Your task to perform on an android device: turn on bluetooth scan Image 0: 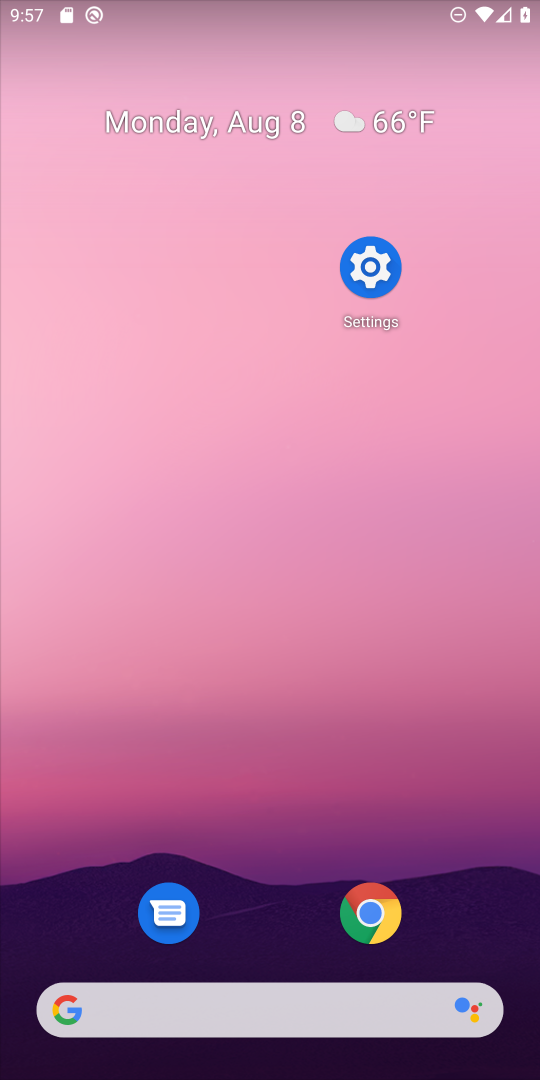
Step 0: drag from (266, 958) to (365, 121)
Your task to perform on an android device: turn on bluetooth scan Image 1: 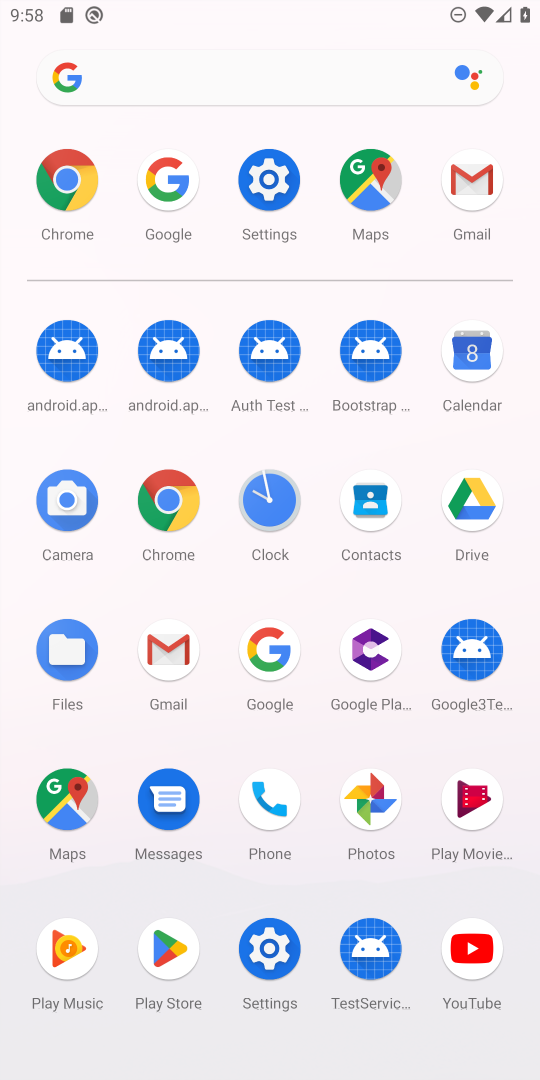
Step 1: click (269, 181)
Your task to perform on an android device: turn on bluetooth scan Image 2: 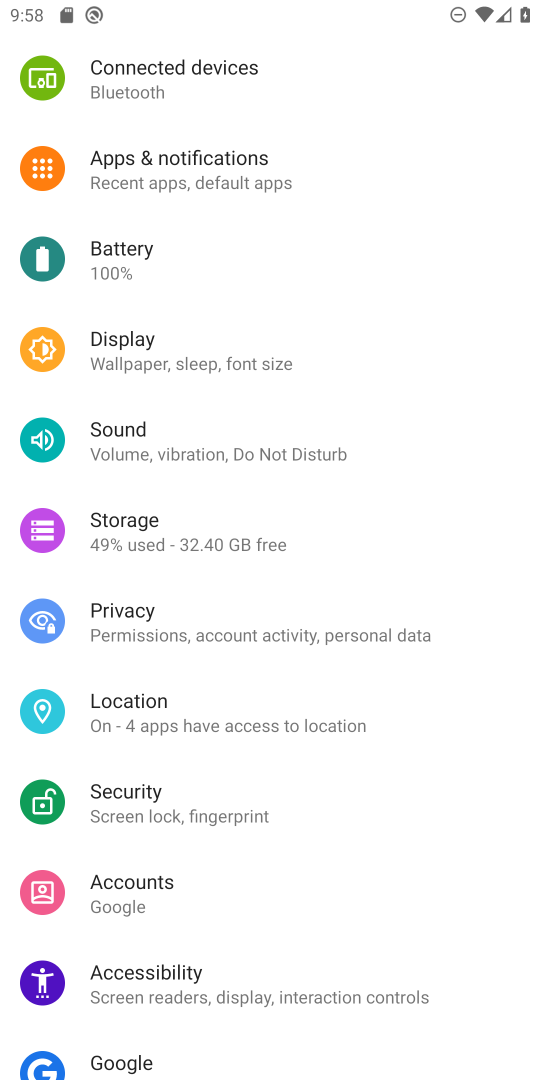
Step 2: drag from (236, 335) to (208, 542)
Your task to perform on an android device: turn on bluetooth scan Image 3: 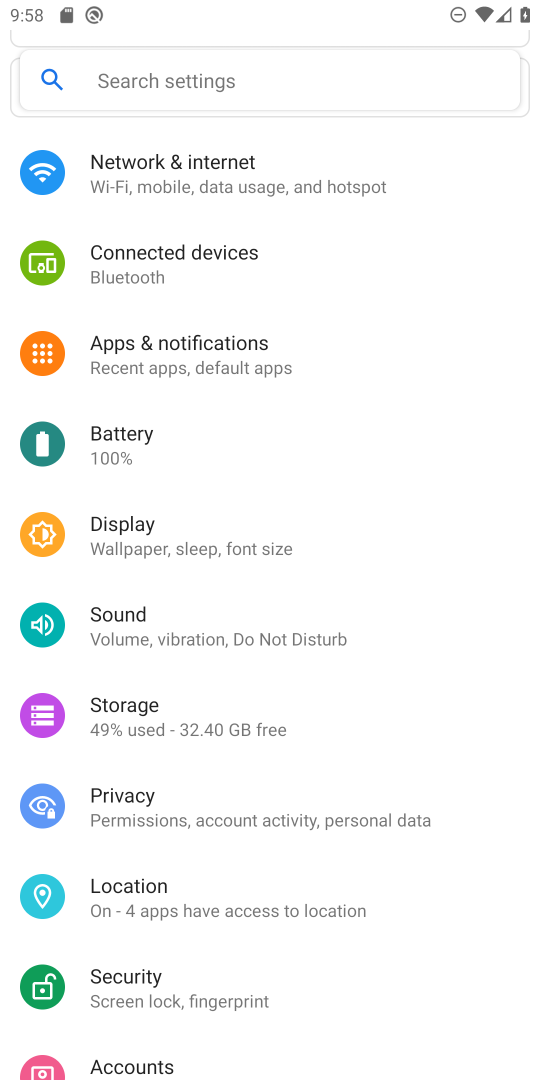
Step 3: click (160, 897)
Your task to perform on an android device: turn on bluetooth scan Image 4: 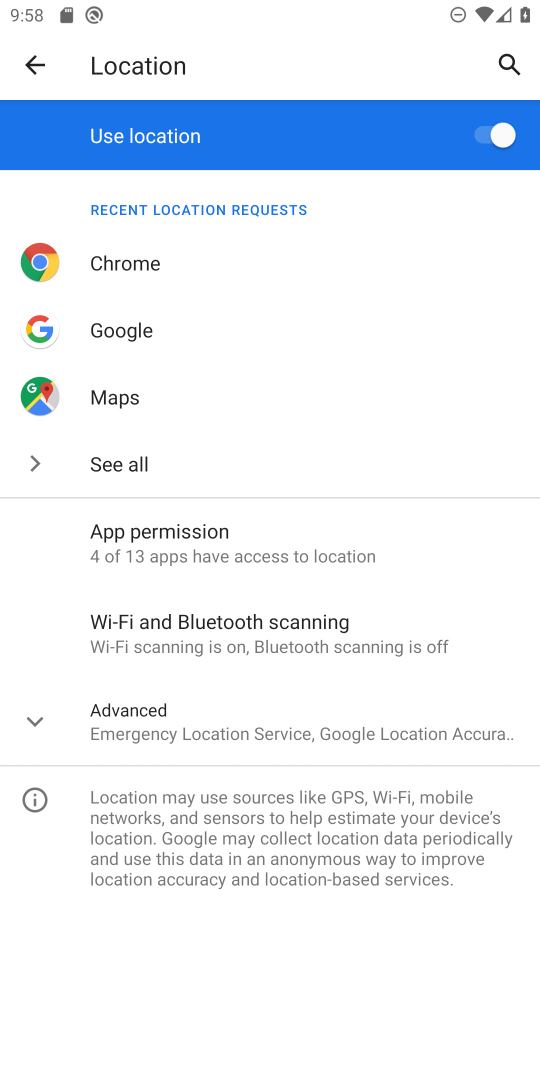
Step 4: click (297, 638)
Your task to perform on an android device: turn on bluetooth scan Image 5: 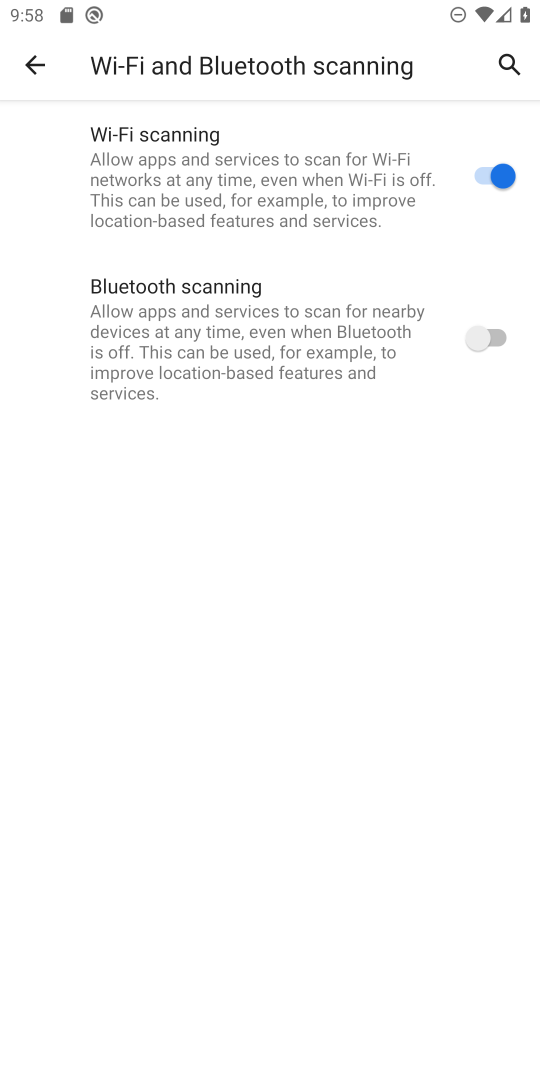
Step 5: click (493, 339)
Your task to perform on an android device: turn on bluetooth scan Image 6: 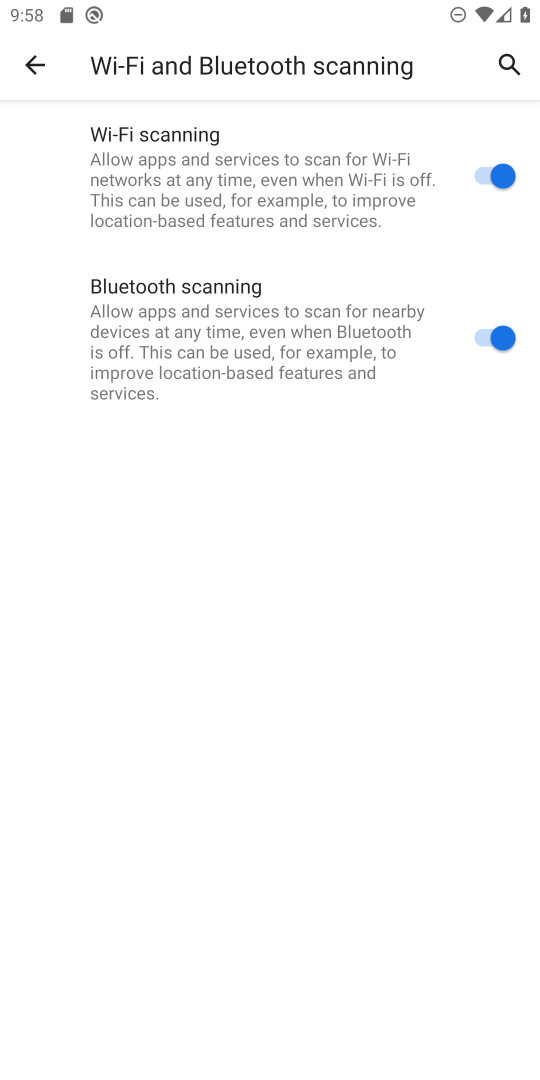
Step 6: task complete